Your task to perform on an android device: Go to ESPN.com Image 0: 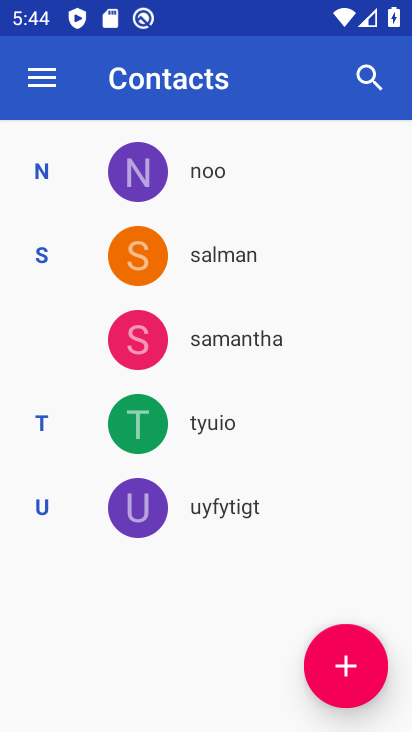
Step 0: press home button
Your task to perform on an android device: Go to ESPN.com Image 1: 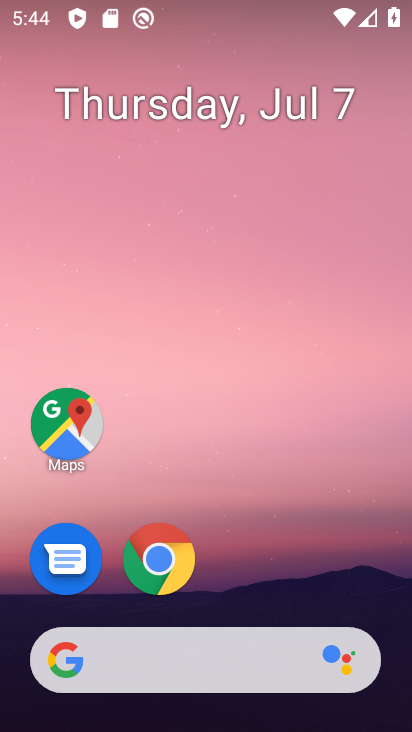
Step 1: click (168, 561)
Your task to perform on an android device: Go to ESPN.com Image 2: 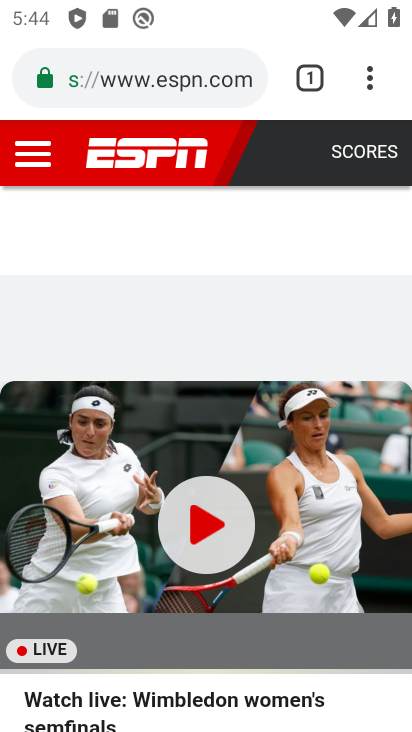
Step 2: task complete